Your task to perform on an android device: change the clock style Image 0: 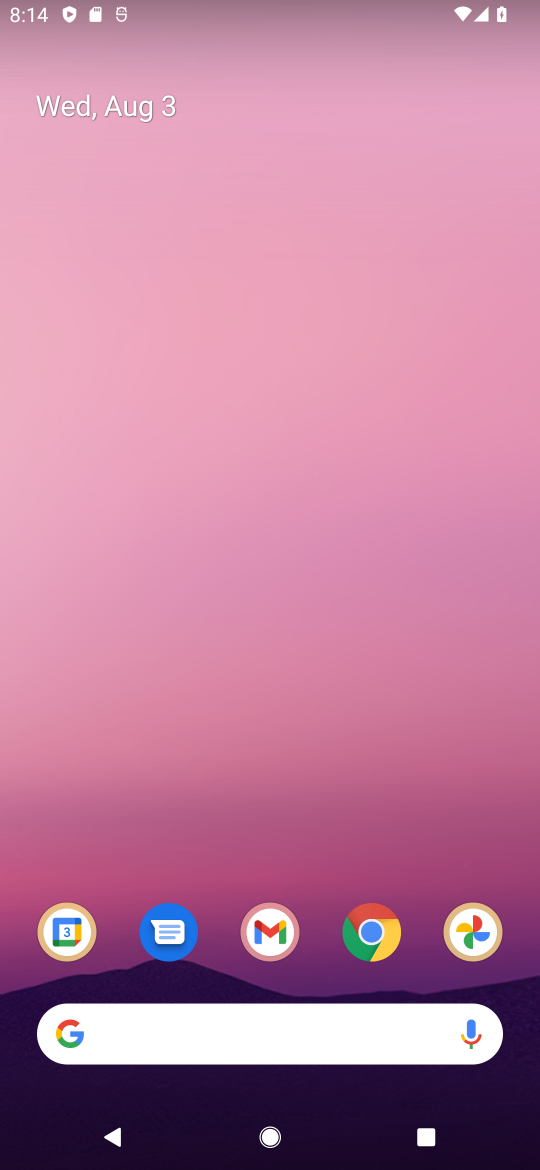
Step 0: drag from (305, 946) to (305, 167)
Your task to perform on an android device: change the clock style Image 1: 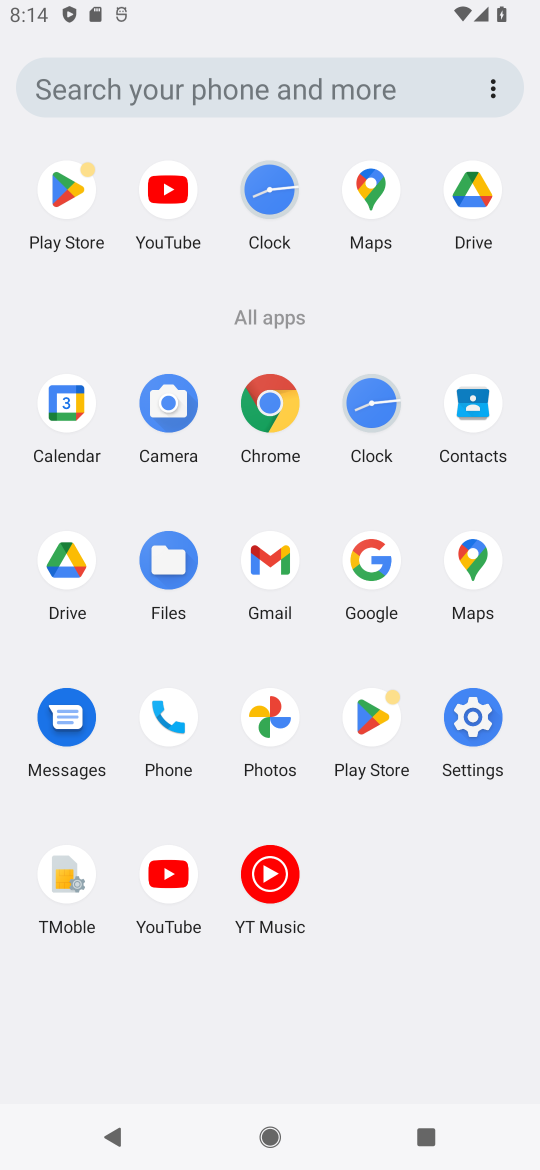
Step 1: click (364, 413)
Your task to perform on an android device: change the clock style Image 2: 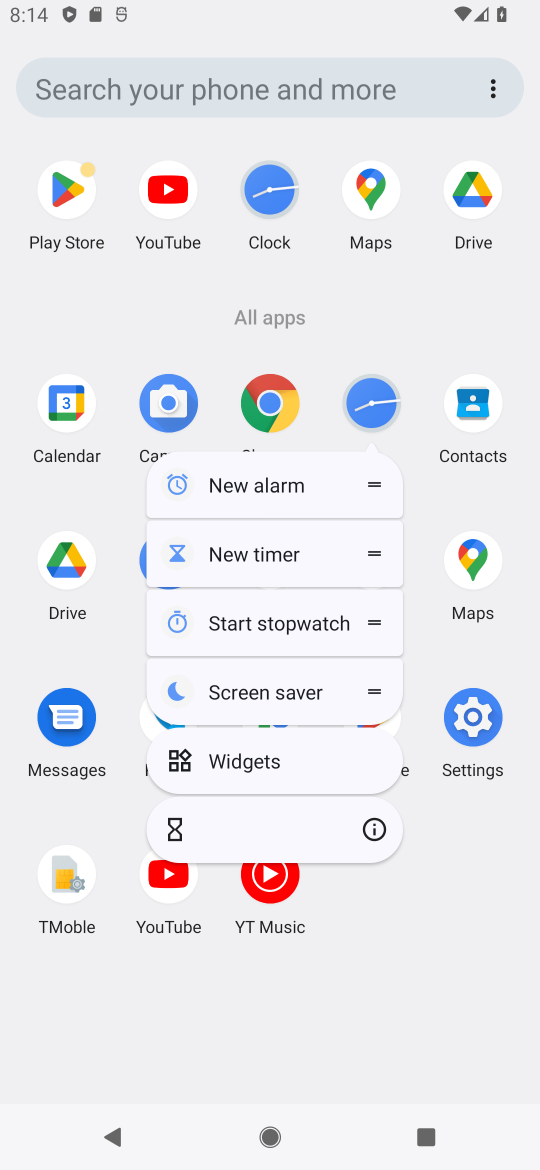
Step 2: click (396, 399)
Your task to perform on an android device: change the clock style Image 3: 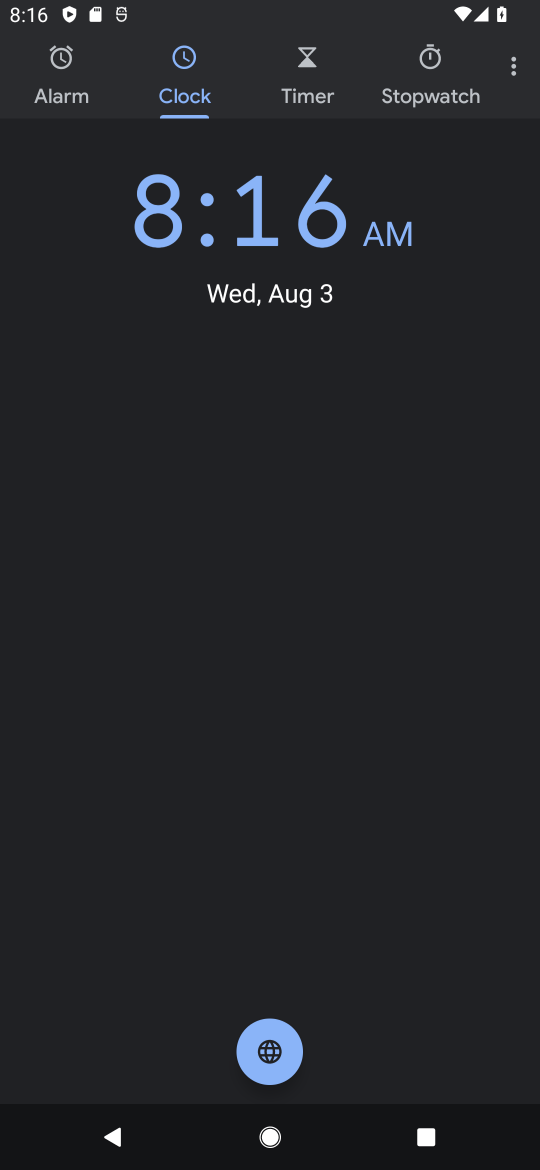
Step 3: click (514, 88)
Your task to perform on an android device: change the clock style Image 4: 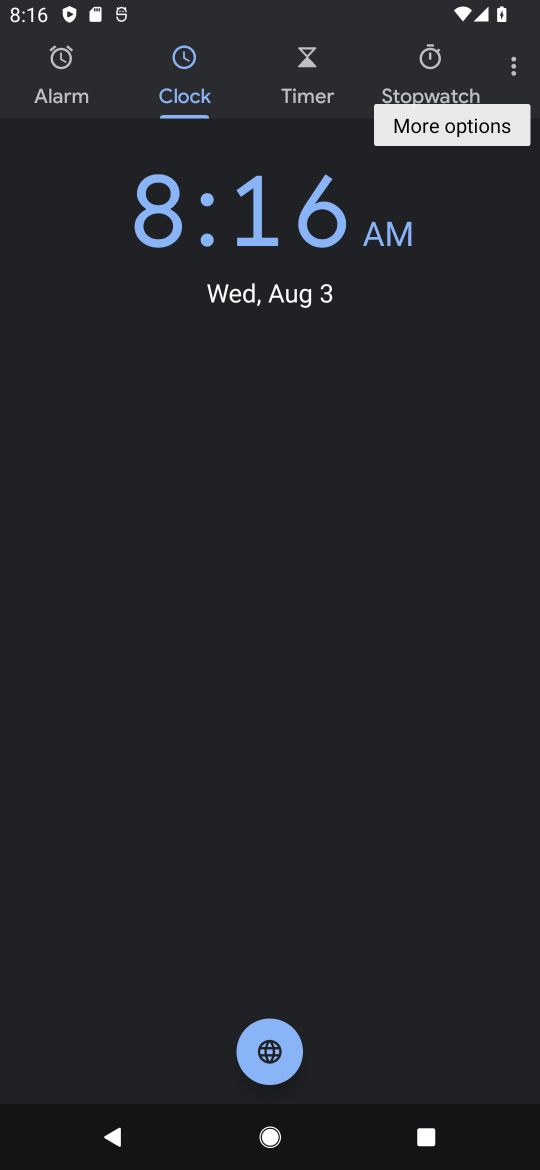
Step 4: click (518, 74)
Your task to perform on an android device: change the clock style Image 5: 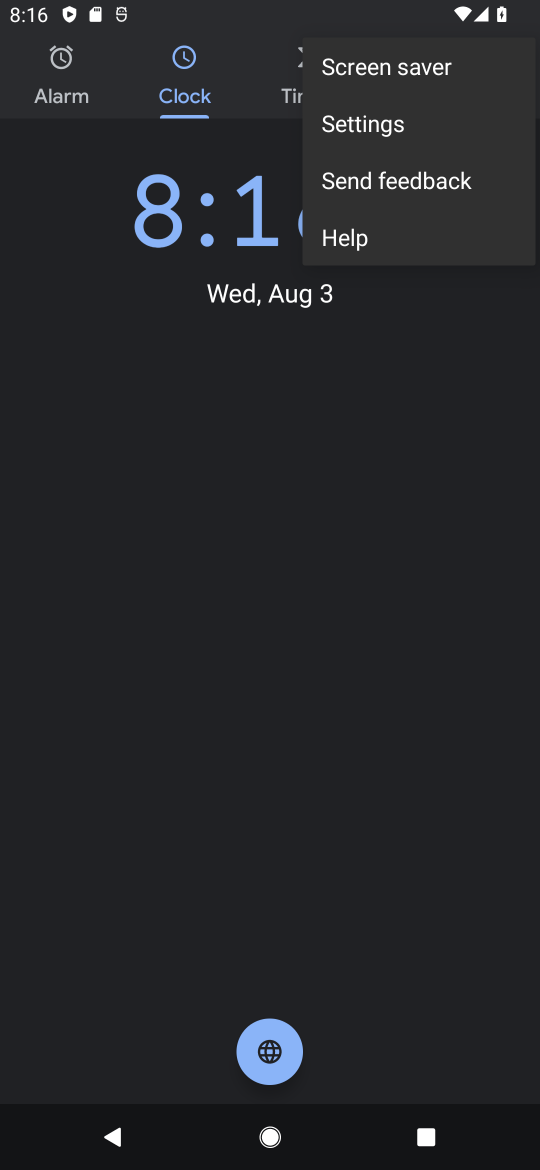
Step 5: click (390, 120)
Your task to perform on an android device: change the clock style Image 6: 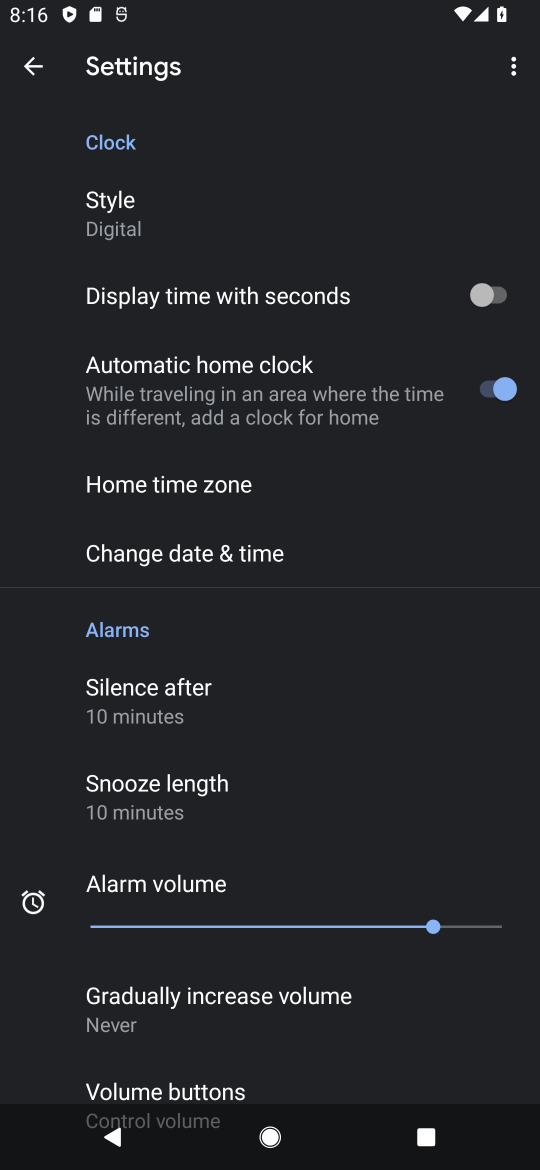
Step 6: click (118, 221)
Your task to perform on an android device: change the clock style Image 7: 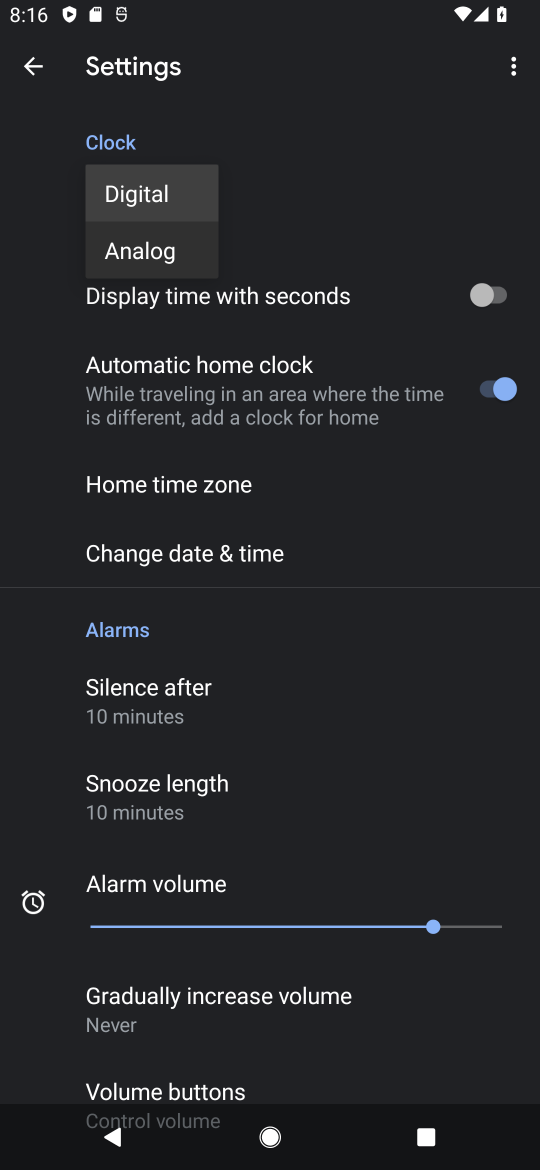
Step 7: click (144, 256)
Your task to perform on an android device: change the clock style Image 8: 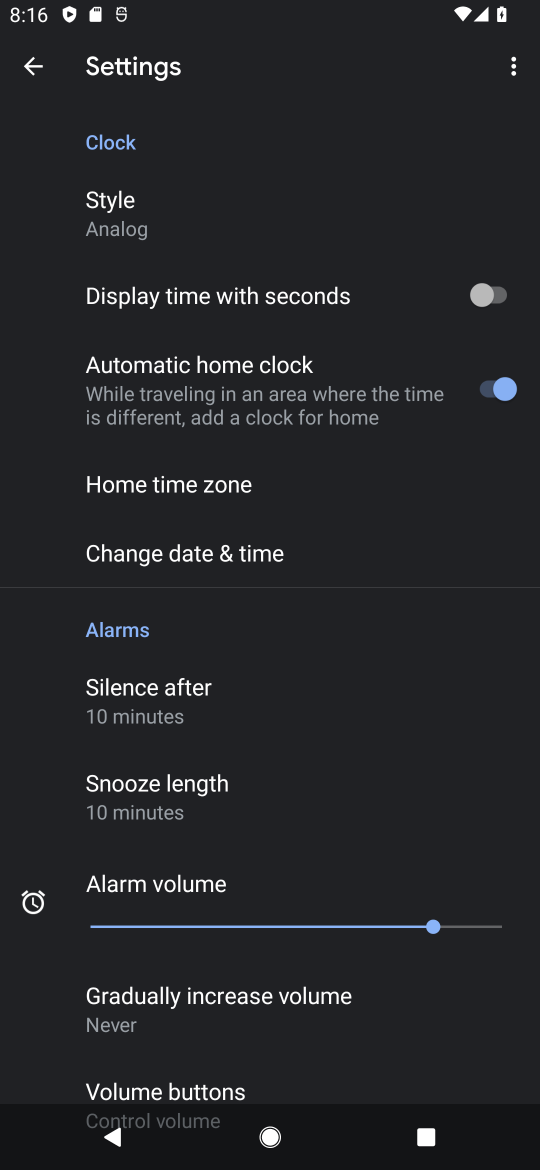
Step 8: task complete